Your task to perform on an android device: Go to notification settings Image 0: 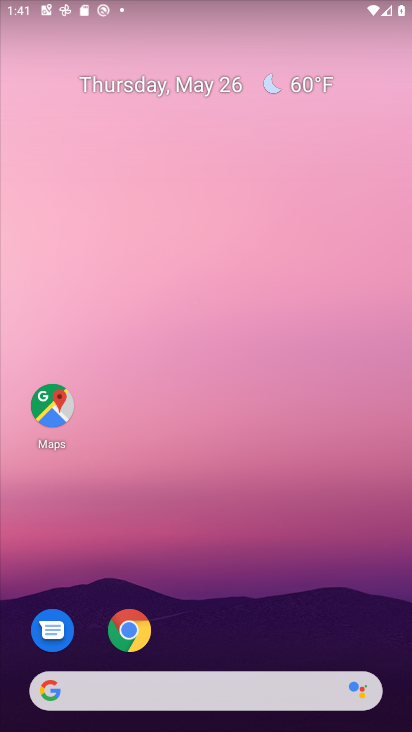
Step 0: drag from (331, 545) to (381, 41)
Your task to perform on an android device: Go to notification settings Image 1: 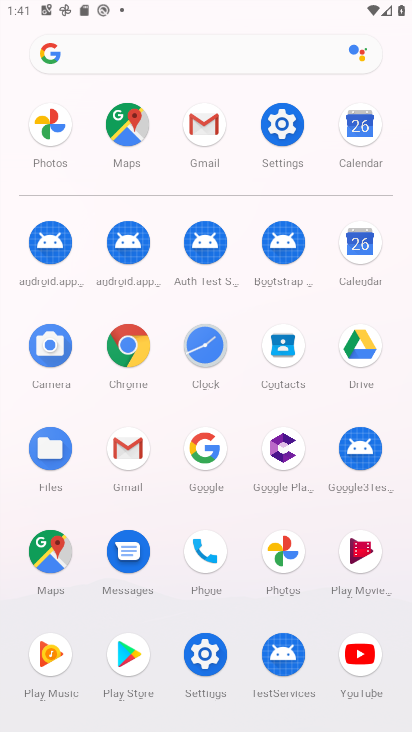
Step 1: click (280, 139)
Your task to perform on an android device: Go to notification settings Image 2: 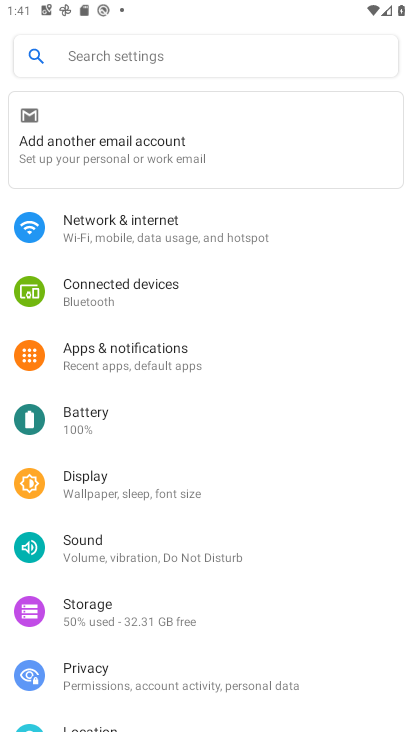
Step 2: click (162, 362)
Your task to perform on an android device: Go to notification settings Image 3: 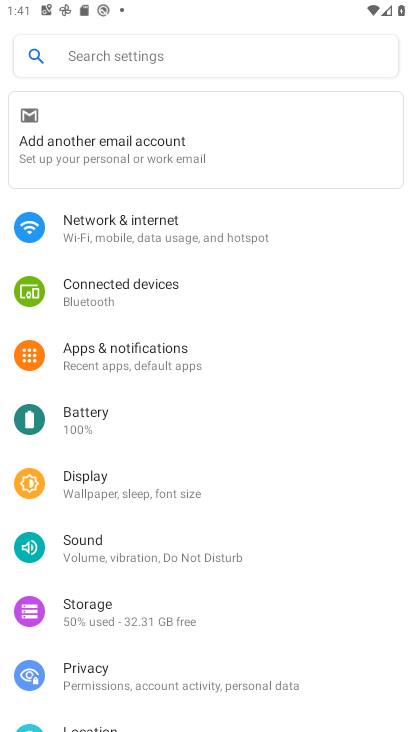
Step 3: click (156, 359)
Your task to perform on an android device: Go to notification settings Image 4: 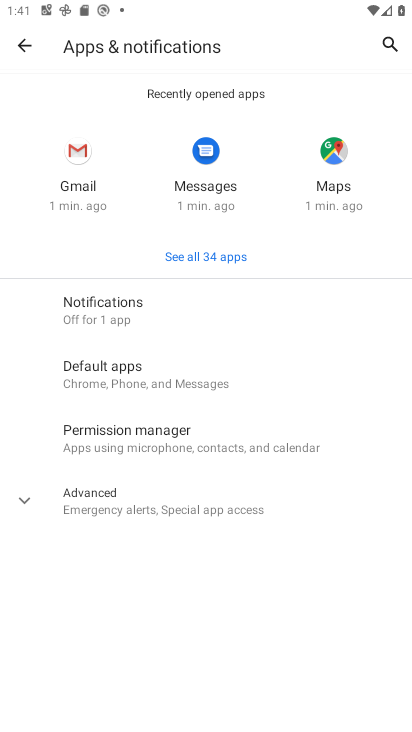
Step 4: click (134, 321)
Your task to perform on an android device: Go to notification settings Image 5: 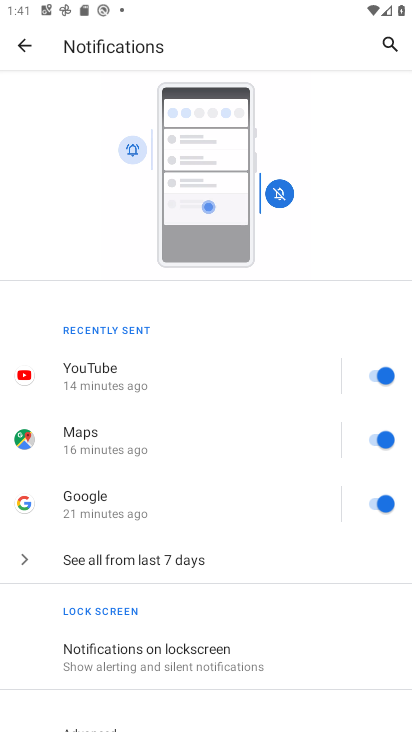
Step 5: task complete